Your task to perform on an android device: open a new tab in the chrome app Image 0: 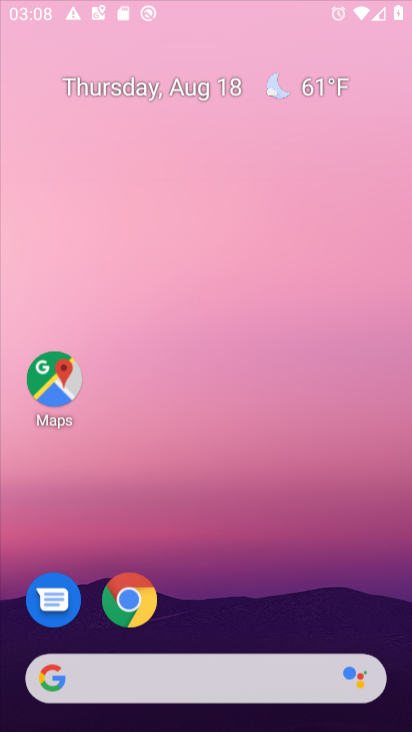
Step 0: press home button
Your task to perform on an android device: open a new tab in the chrome app Image 1: 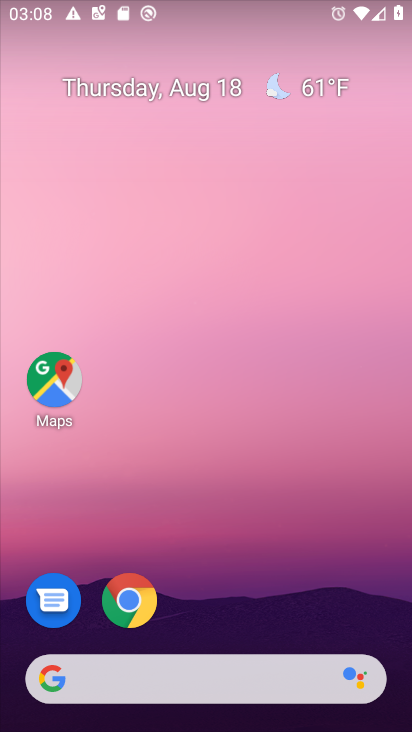
Step 1: click (141, 599)
Your task to perform on an android device: open a new tab in the chrome app Image 2: 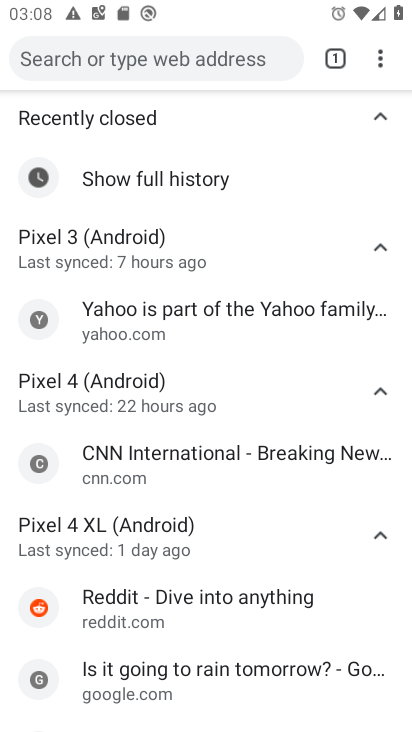
Step 2: click (335, 68)
Your task to perform on an android device: open a new tab in the chrome app Image 3: 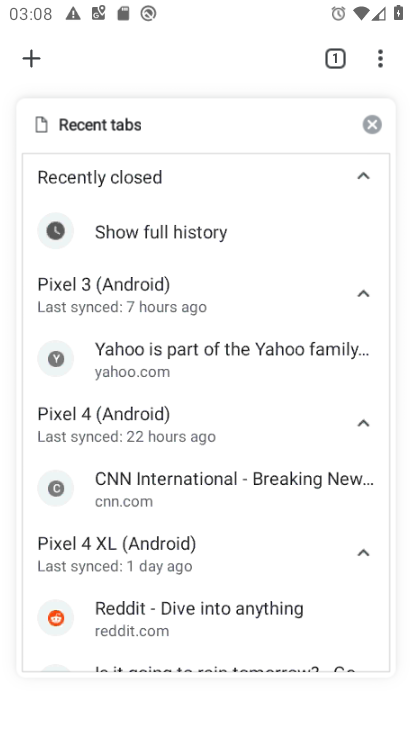
Step 3: click (29, 61)
Your task to perform on an android device: open a new tab in the chrome app Image 4: 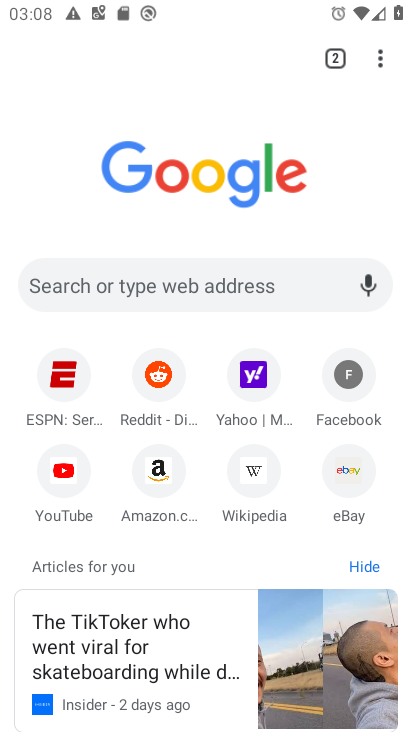
Step 4: task complete